Your task to perform on an android device: add a label to a message in the gmail app Image 0: 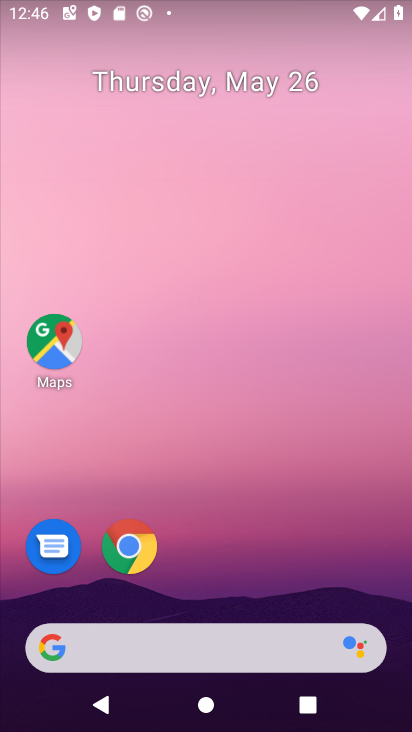
Step 0: press home button
Your task to perform on an android device: add a label to a message in the gmail app Image 1: 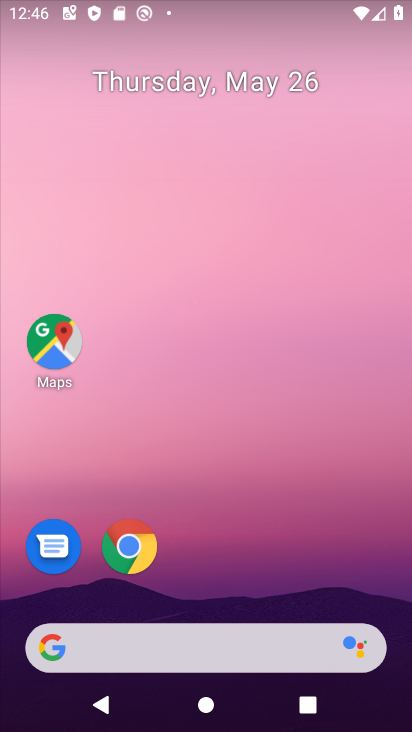
Step 1: drag from (330, 545) to (355, 64)
Your task to perform on an android device: add a label to a message in the gmail app Image 2: 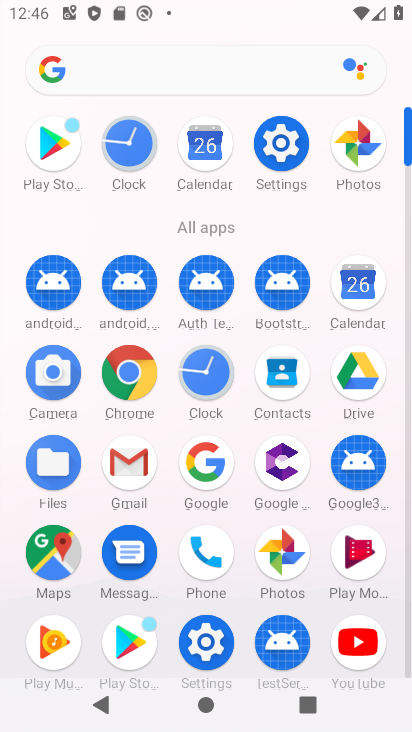
Step 2: click (161, 461)
Your task to perform on an android device: add a label to a message in the gmail app Image 3: 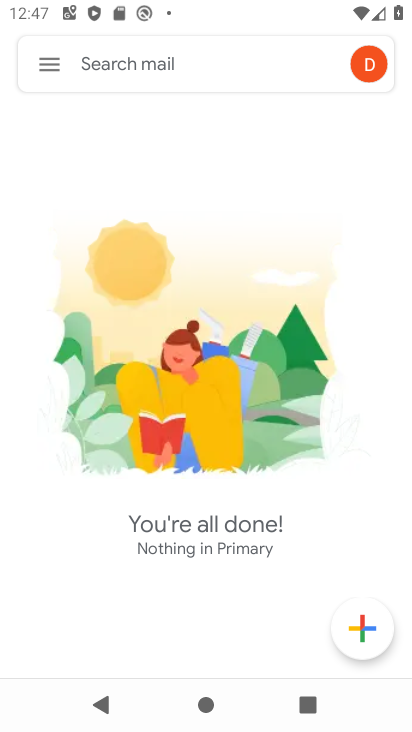
Step 3: task complete